Your task to perform on an android device: remove spam from my inbox in the gmail app Image 0: 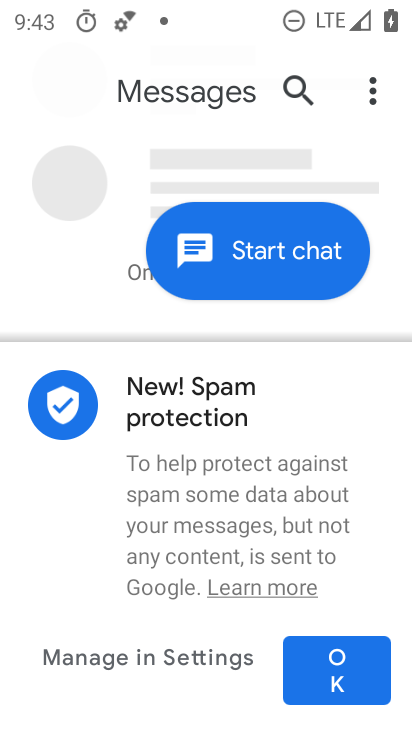
Step 0: press home button
Your task to perform on an android device: remove spam from my inbox in the gmail app Image 1: 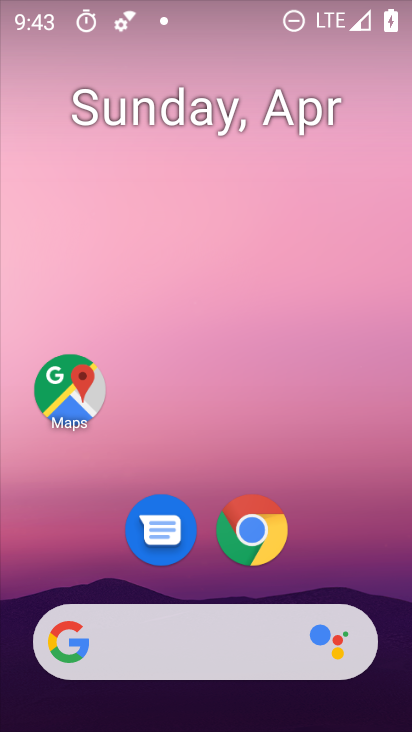
Step 1: drag from (372, 585) to (409, 265)
Your task to perform on an android device: remove spam from my inbox in the gmail app Image 2: 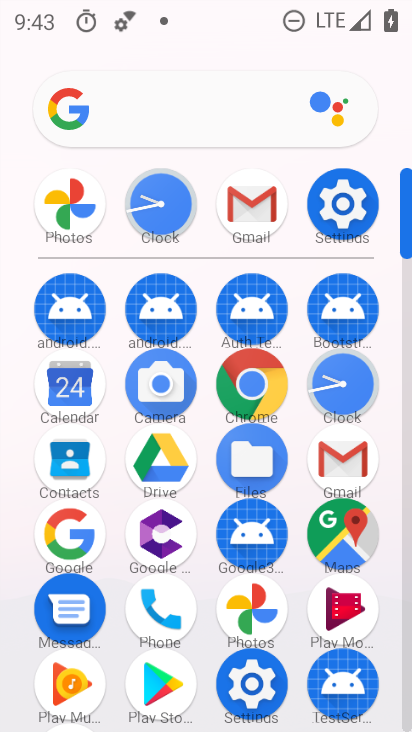
Step 2: click (254, 203)
Your task to perform on an android device: remove spam from my inbox in the gmail app Image 3: 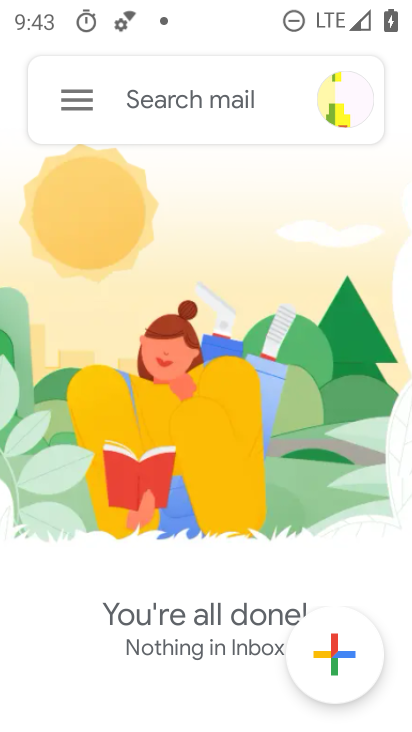
Step 3: click (76, 104)
Your task to perform on an android device: remove spam from my inbox in the gmail app Image 4: 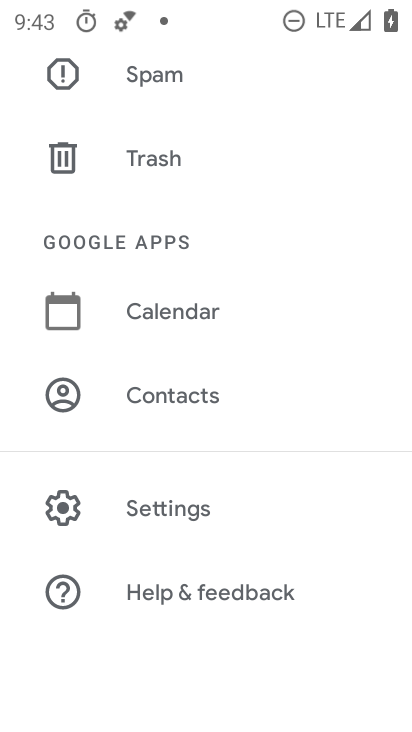
Step 4: click (140, 84)
Your task to perform on an android device: remove spam from my inbox in the gmail app Image 5: 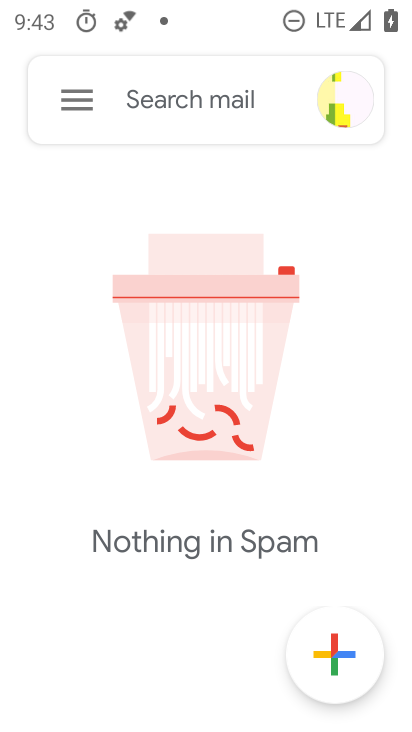
Step 5: task complete